Your task to perform on an android device: Open accessibility settings Image 0: 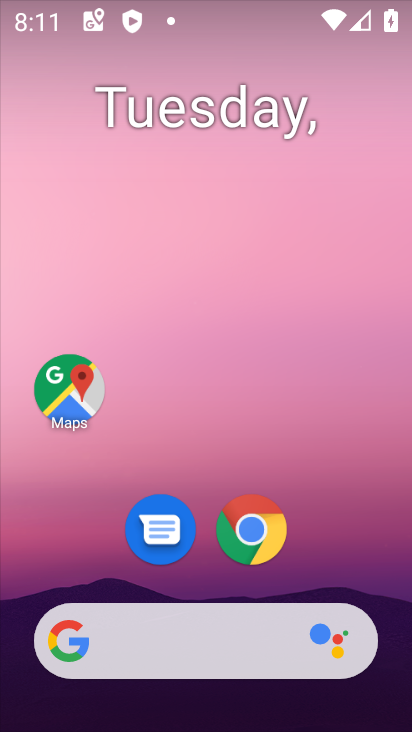
Step 0: drag from (207, 677) to (267, 98)
Your task to perform on an android device: Open accessibility settings Image 1: 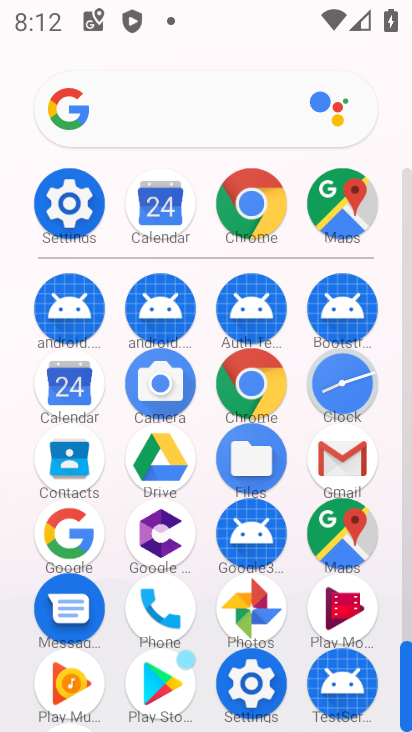
Step 1: drag from (216, 489) to (271, 14)
Your task to perform on an android device: Open accessibility settings Image 2: 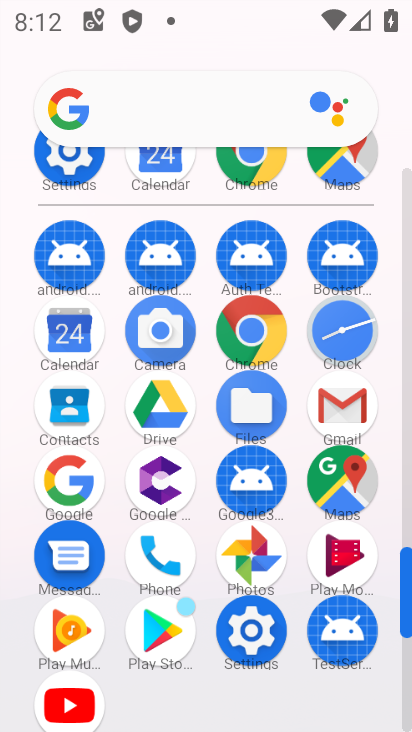
Step 2: click (269, 637)
Your task to perform on an android device: Open accessibility settings Image 3: 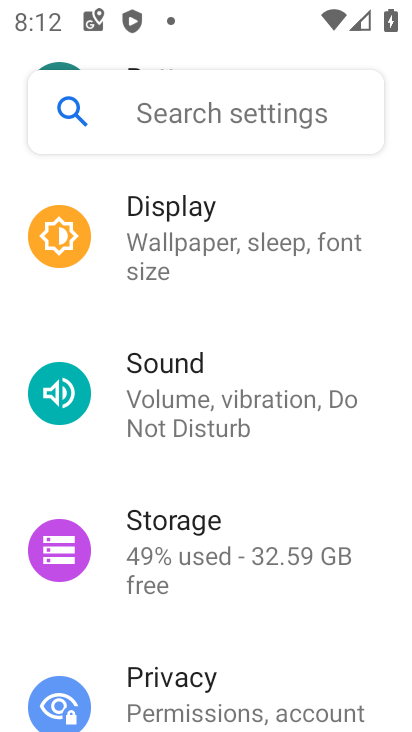
Step 3: drag from (216, 541) to (288, 0)
Your task to perform on an android device: Open accessibility settings Image 4: 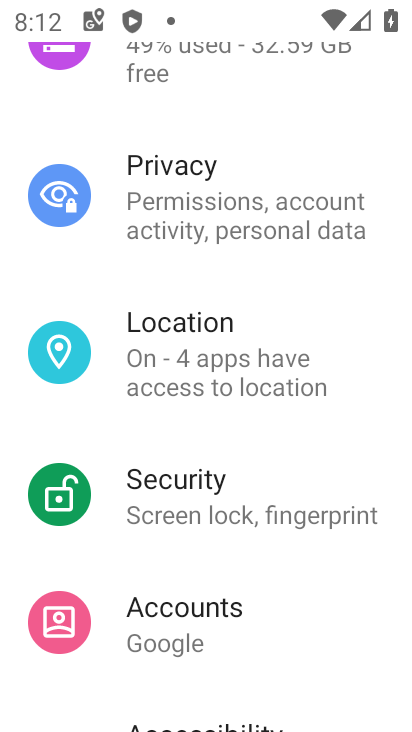
Step 4: drag from (208, 572) to (330, 13)
Your task to perform on an android device: Open accessibility settings Image 5: 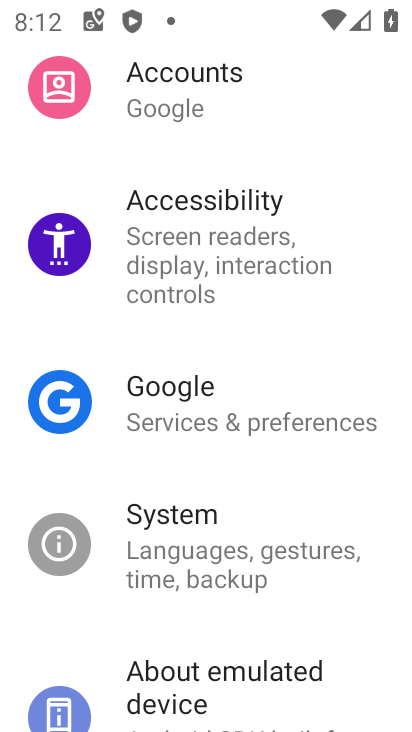
Step 5: click (207, 235)
Your task to perform on an android device: Open accessibility settings Image 6: 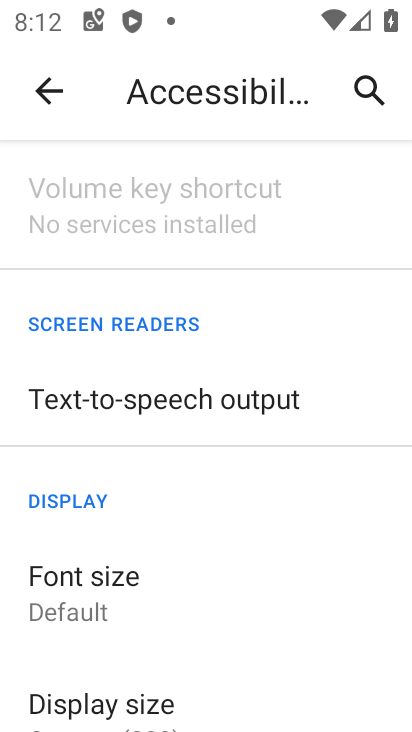
Step 6: task complete